Your task to perform on an android device: Open Reddit.com Image 0: 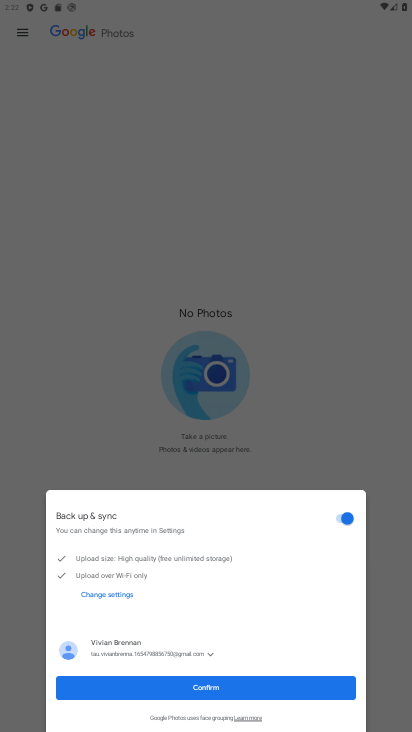
Step 0: press home button
Your task to perform on an android device: Open Reddit.com Image 1: 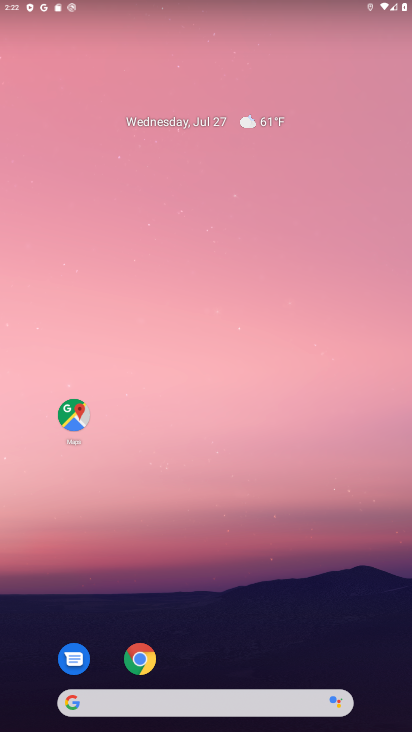
Step 1: drag from (160, 668) to (176, 197)
Your task to perform on an android device: Open Reddit.com Image 2: 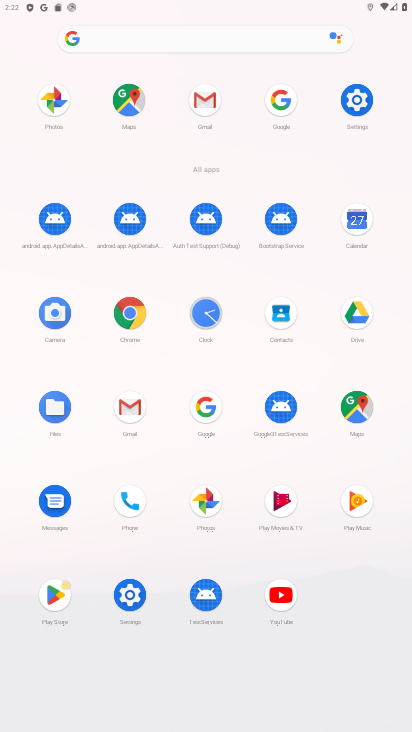
Step 2: click (219, 406)
Your task to perform on an android device: Open Reddit.com Image 3: 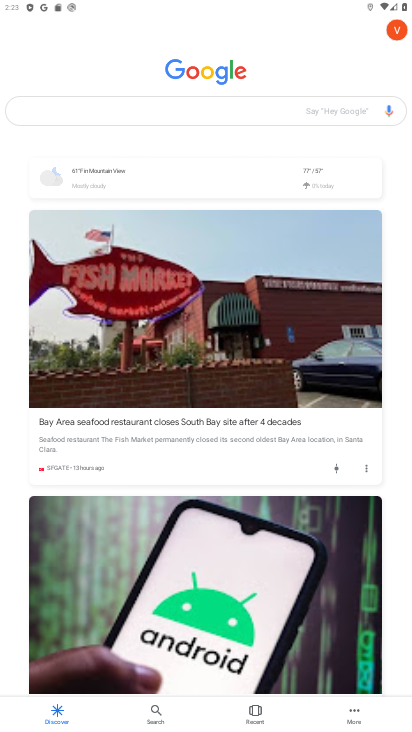
Step 3: click (119, 113)
Your task to perform on an android device: Open Reddit.com Image 4: 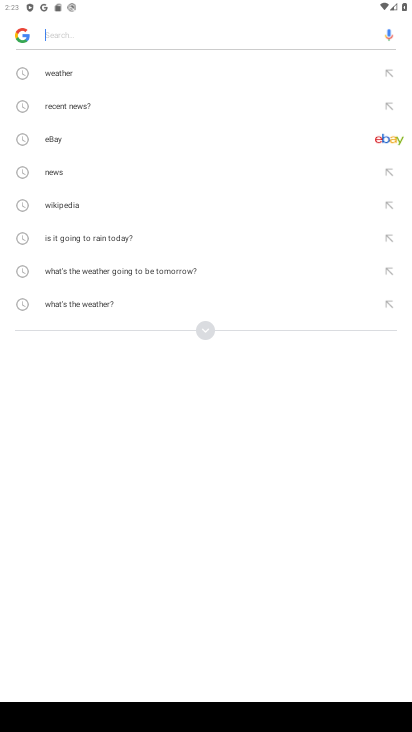
Step 4: click (205, 328)
Your task to perform on an android device: Open Reddit.com Image 5: 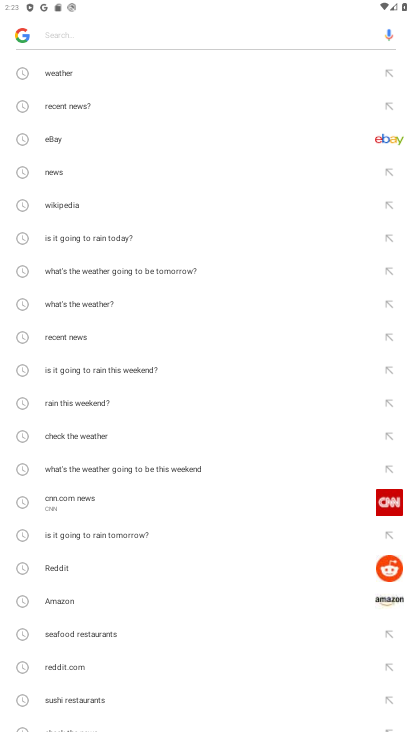
Step 5: click (81, 665)
Your task to perform on an android device: Open Reddit.com Image 6: 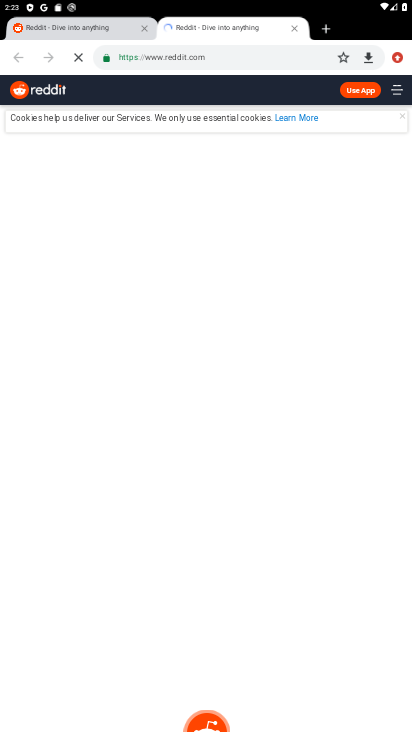
Step 6: task complete